Your task to perform on an android device: turn off location Image 0: 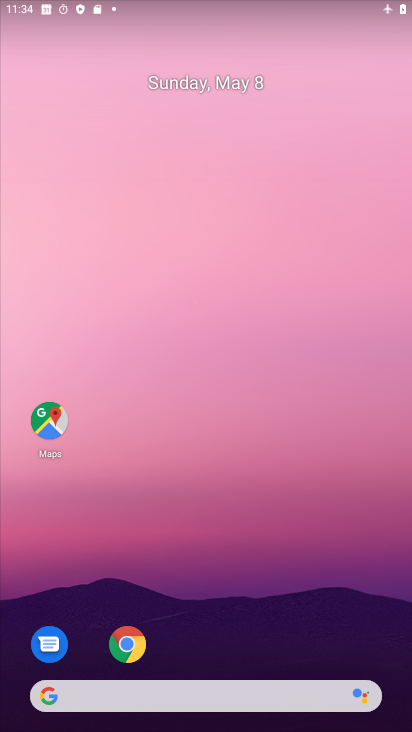
Step 0: drag from (208, 642) to (184, 283)
Your task to perform on an android device: turn off location Image 1: 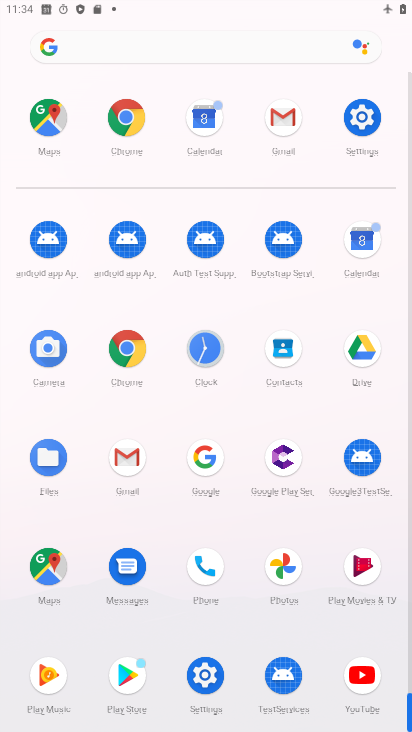
Step 1: click (368, 117)
Your task to perform on an android device: turn off location Image 2: 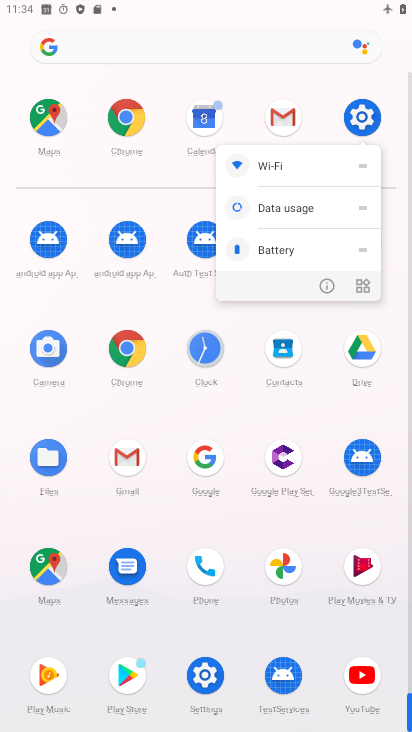
Step 2: click (321, 295)
Your task to perform on an android device: turn off location Image 3: 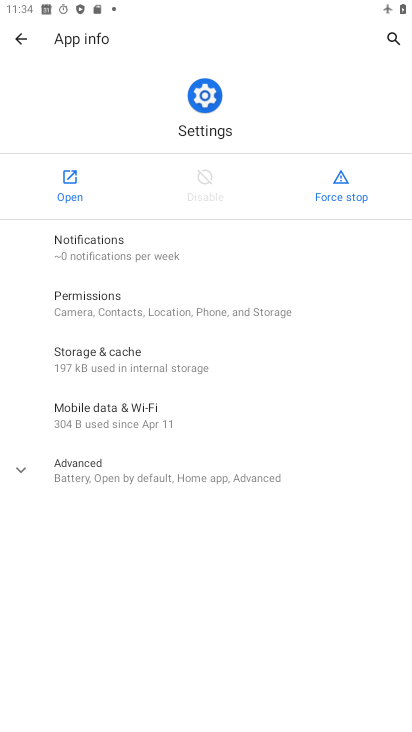
Step 3: click (65, 183)
Your task to perform on an android device: turn off location Image 4: 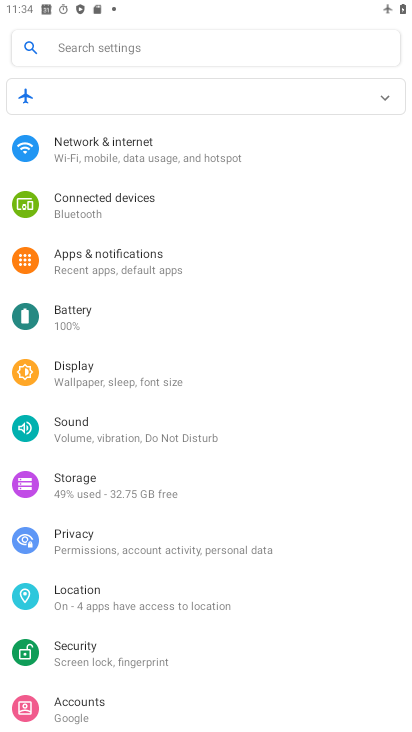
Step 4: click (130, 595)
Your task to perform on an android device: turn off location Image 5: 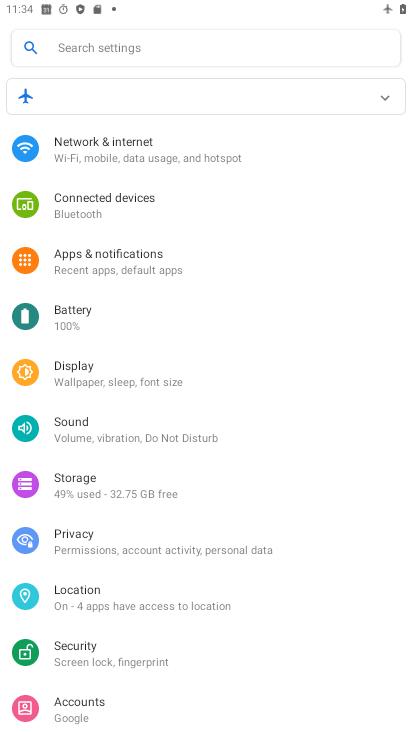
Step 5: click (130, 595)
Your task to perform on an android device: turn off location Image 6: 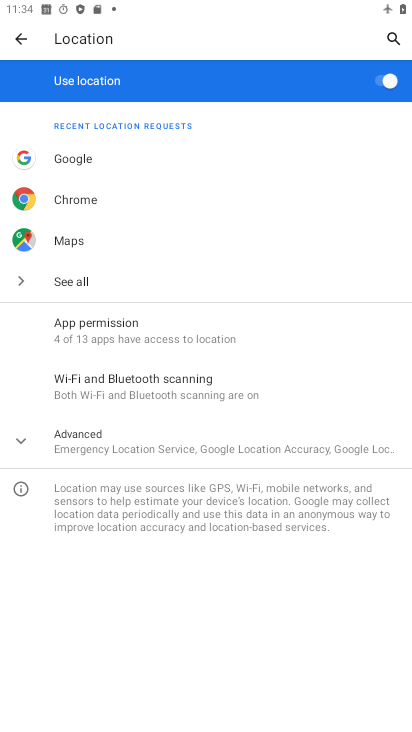
Step 6: click (391, 81)
Your task to perform on an android device: turn off location Image 7: 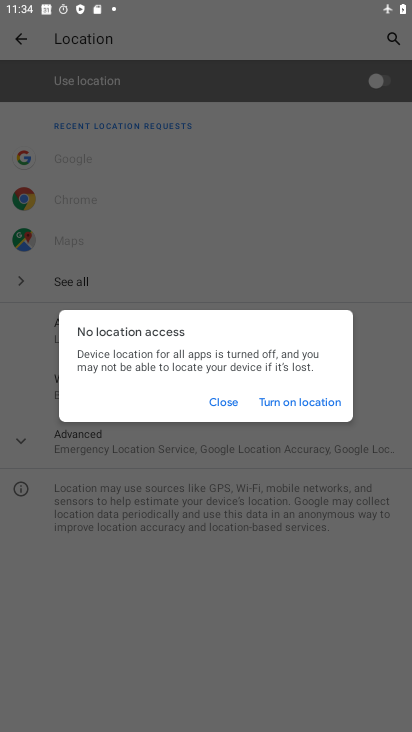
Step 7: task complete